Your task to perform on an android device: see tabs open on other devices in the chrome app Image 0: 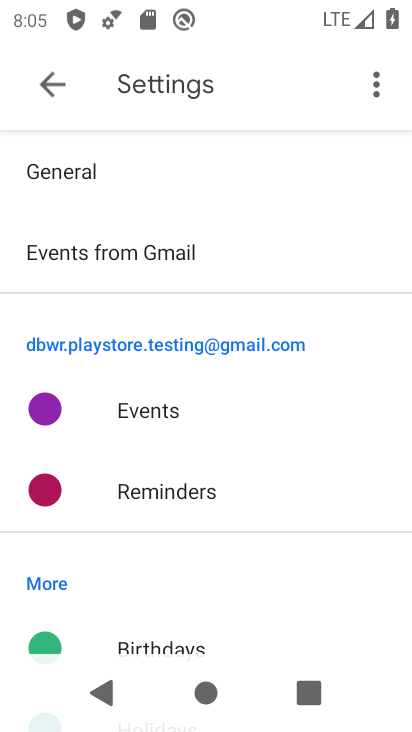
Step 0: drag from (217, 609) to (203, 143)
Your task to perform on an android device: see tabs open on other devices in the chrome app Image 1: 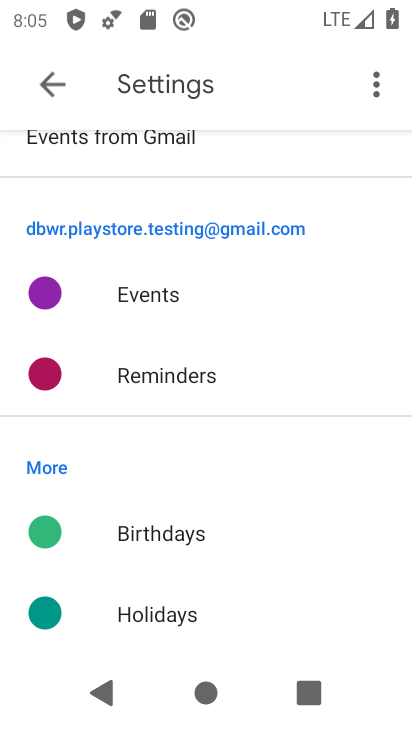
Step 1: drag from (232, 522) to (251, 313)
Your task to perform on an android device: see tabs open on other devices in the chrome app Image 2: 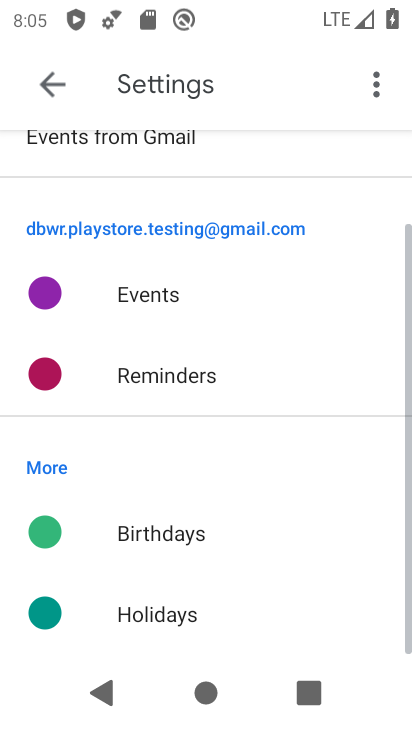
Step 2: drag from (270, 224) to (310, 684)
Your task to perform on an android device: see tabs open on other devices in the chrome app Image 3: 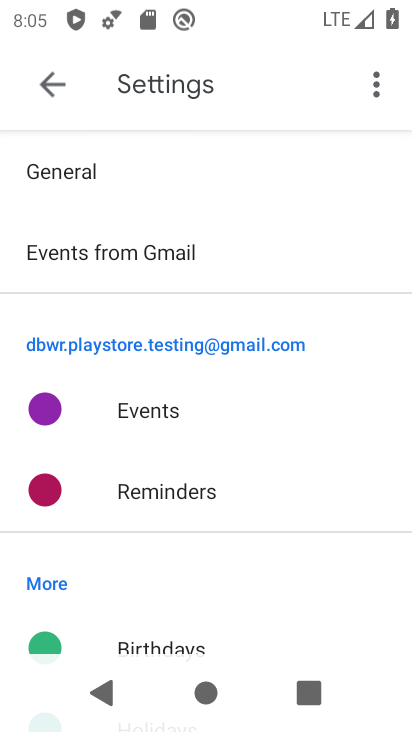
Step 3: drag from (215, 278) to (271, 639)
Your task to perform on an android device: see tabs open on other devices in the chrome app Image 4: 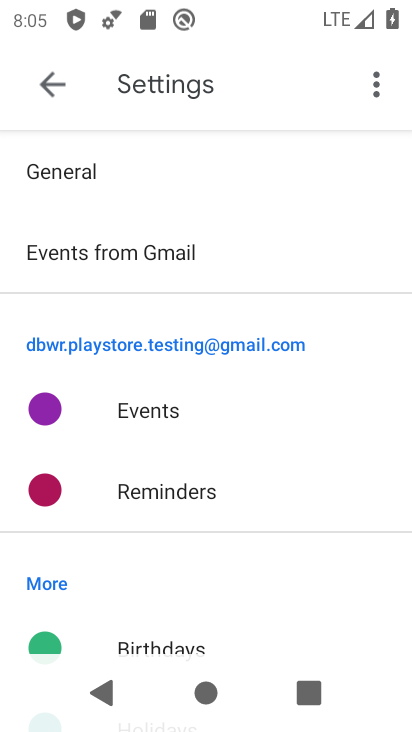
Step 4: press home button
Your task to perform on an android device: see tabs open on other devices in the chrome app Image 5: 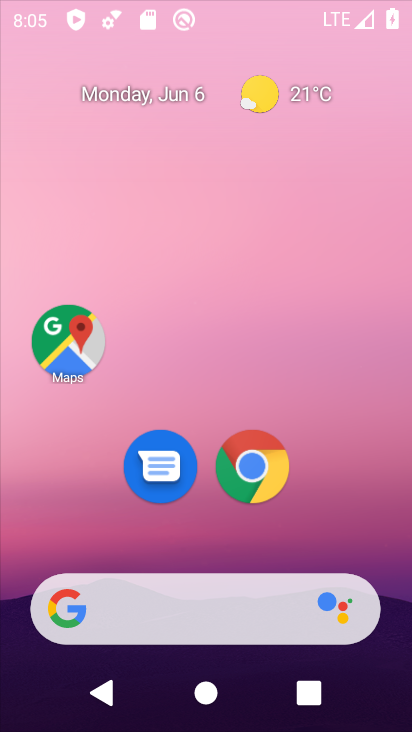
Step 5: drag from (162, 566) to (200, 323)
Your task to perform on an android device: see tabs open on other devices in the chrome app Image 6: 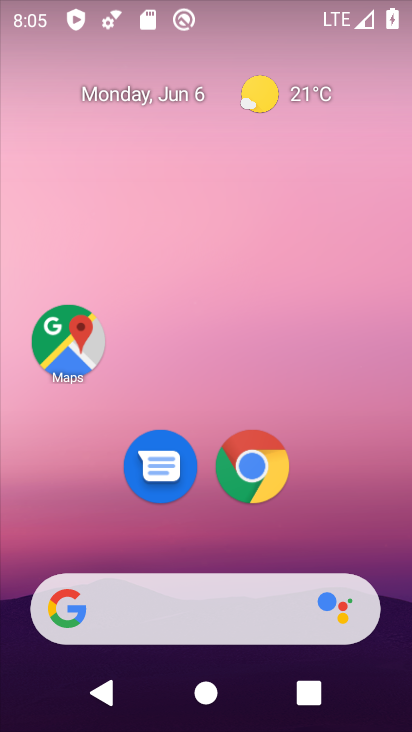
Step 6: drag from (221, 569) to (203, 260)
Your task to perform on an android device: see tabs open on other devices in the chrome app Image 7: 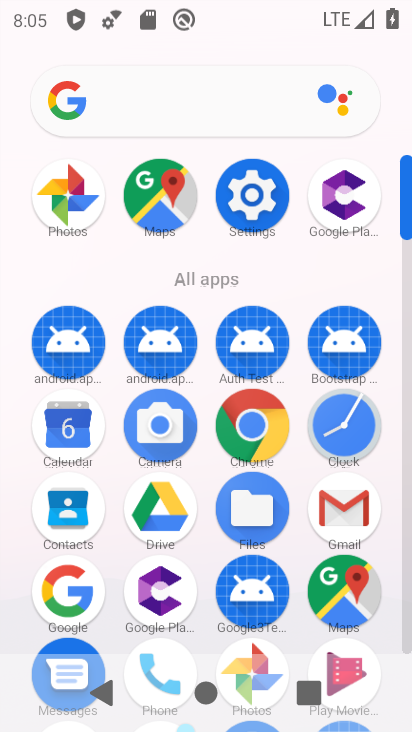
Step 7: click (265, 425)
Your task to perform on an android device: see tabs open on other devices in the chrome app Image 8: 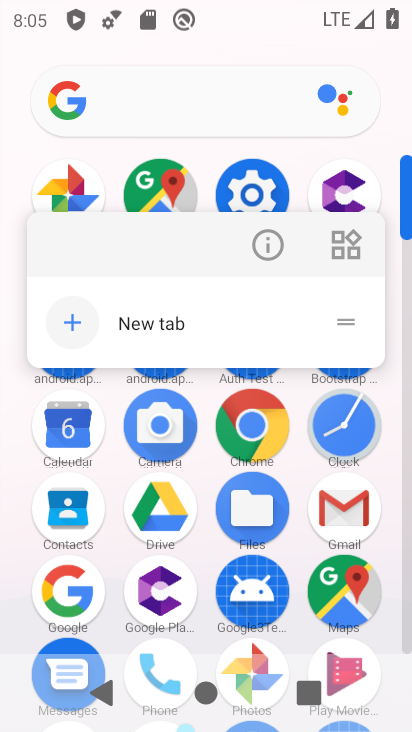
Step 8: click (254, 238)
Your task to perform on an android device: see tabs open on other devices in the chrome app Image 9: 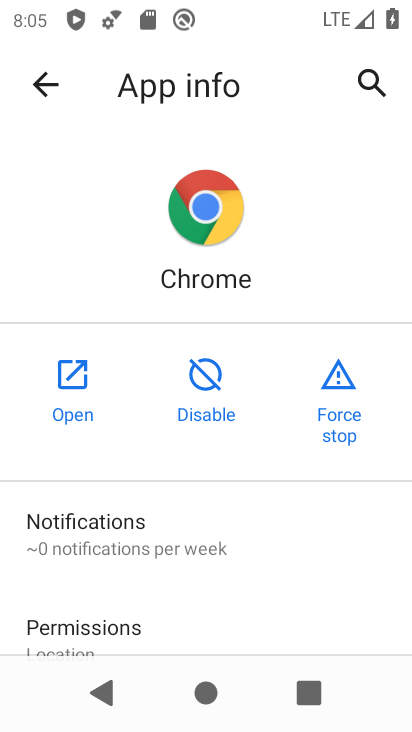
Step 9: click (82, 376)
Your task to perform on an android device: see tabs open on other devices in the chrome app Image 10: 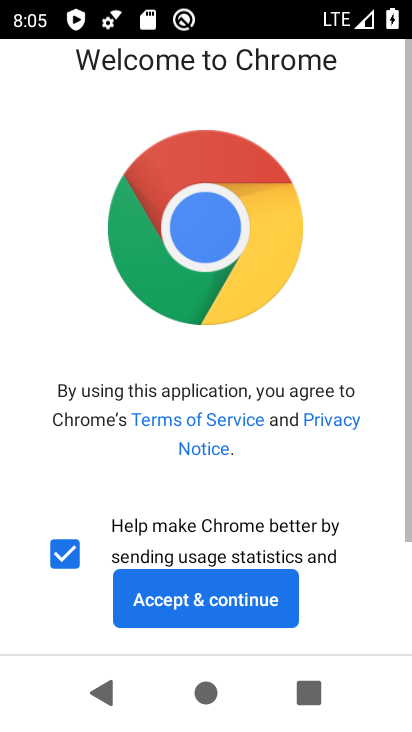
Step 10: drag from (130, 561) to (238, 261)
Your task to perform on an android device: see tabs open on other devices in the chrome app Image 11: 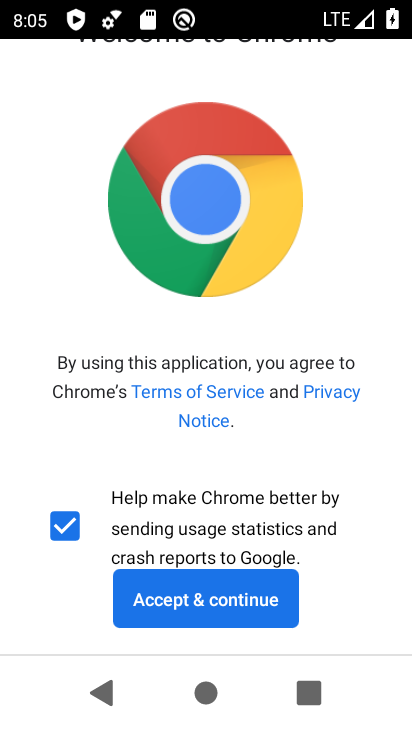
Step 11: click (190, 623)
Your task to perform on an android device: see tabs open on other devices in the chrome app Image 12: 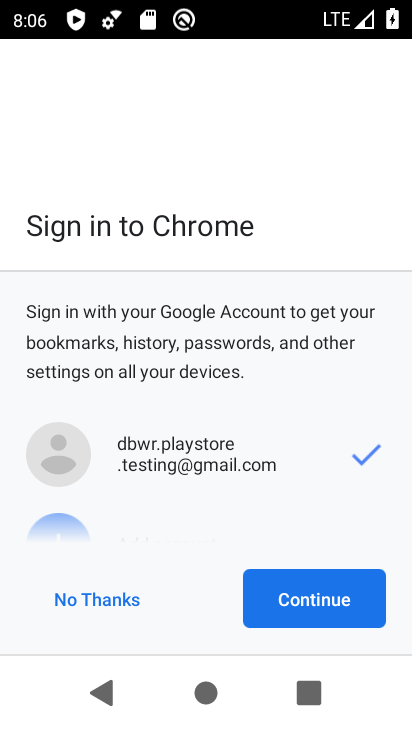
Step 12: drag from (229, 535) to (321, 36)
Your task to perform on an android device: see tabs open on other devices in the chrome app Image 13: 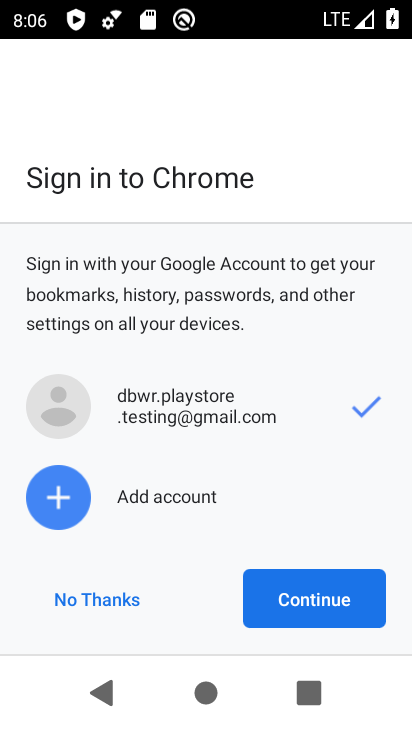
Step 13: click (312, 609)
Your task to perform on an android device: see tabs open on other devices in the chrome app Image 14: 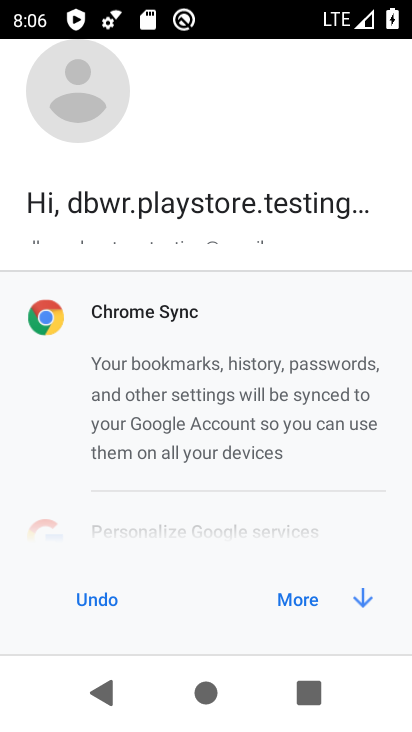
Step 14: click (329, 603)
Your task to perform on an android device: see tabs open on other devices in the chrome app Image 15: 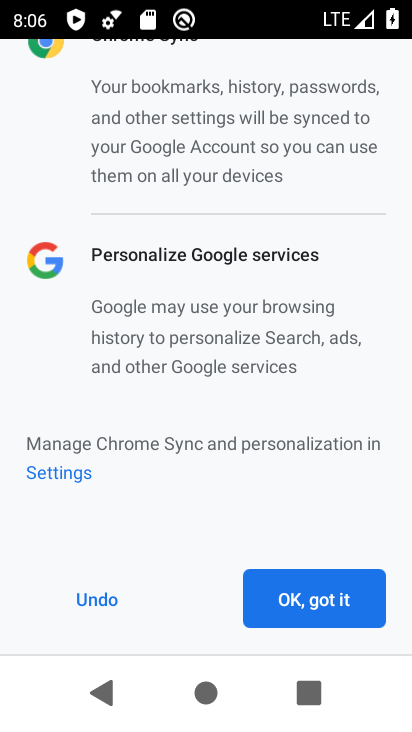
Step 15: click (318, 606)
Your task to perform on an android device: see tabs open on other devices in the chrome app Image 16: 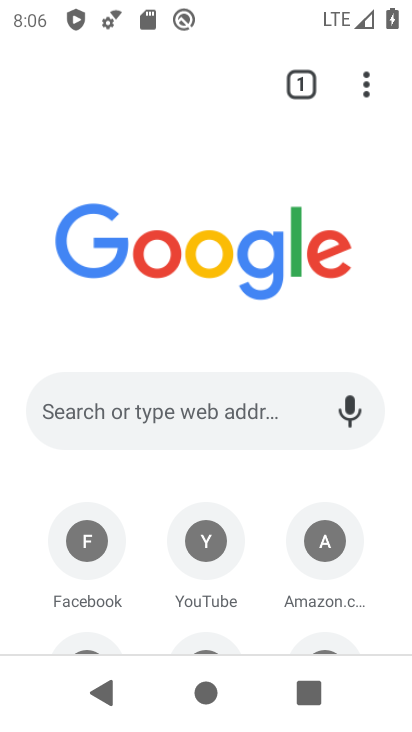
Step 16: task complete